Your task to perform on an android device: Go to display settings Image 0: 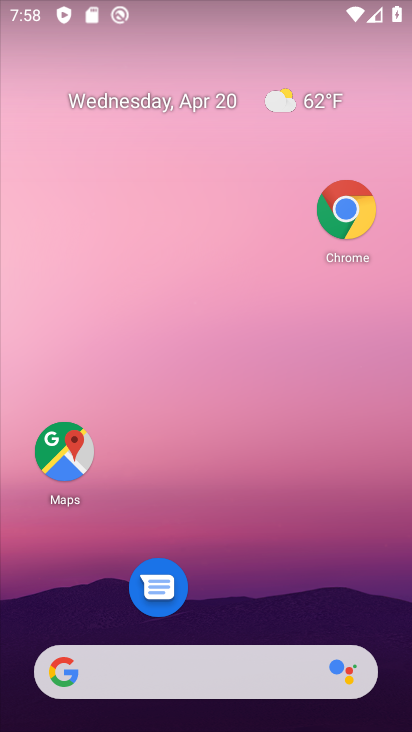
Step 0: drag from (266, 612) to (161, 44)
Your task to perform on an android device: Go to display settings Image 1: 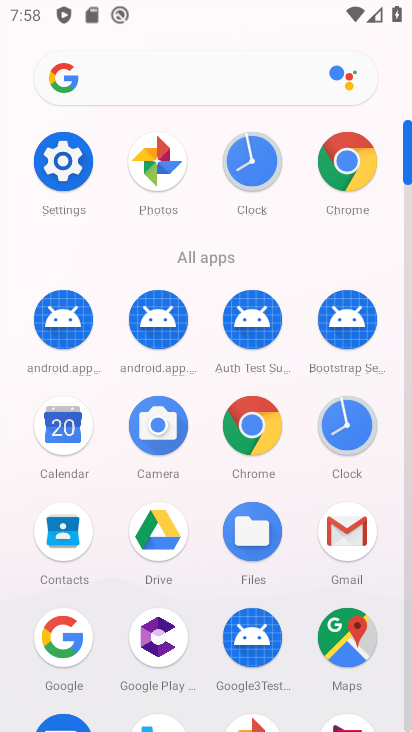
Step 1: click (79, 174)
Your task to perform on an android device: Go to display settings Image 2: 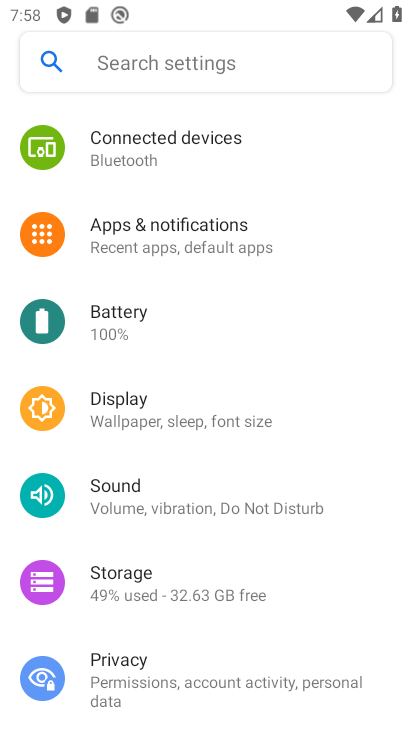
Step 2: click (179, 418)
Your task to perform on an android device: Go to display settings Image 3: 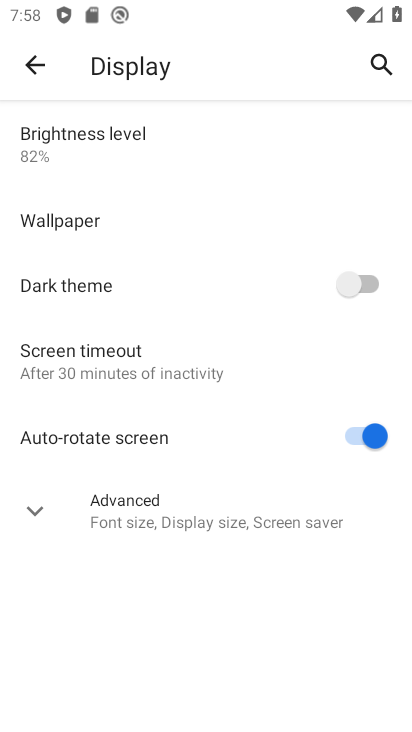
Step 3: task complete